Your task to perform on an android device: Look up the best rated coffee maker on Lowe's. Image 0: 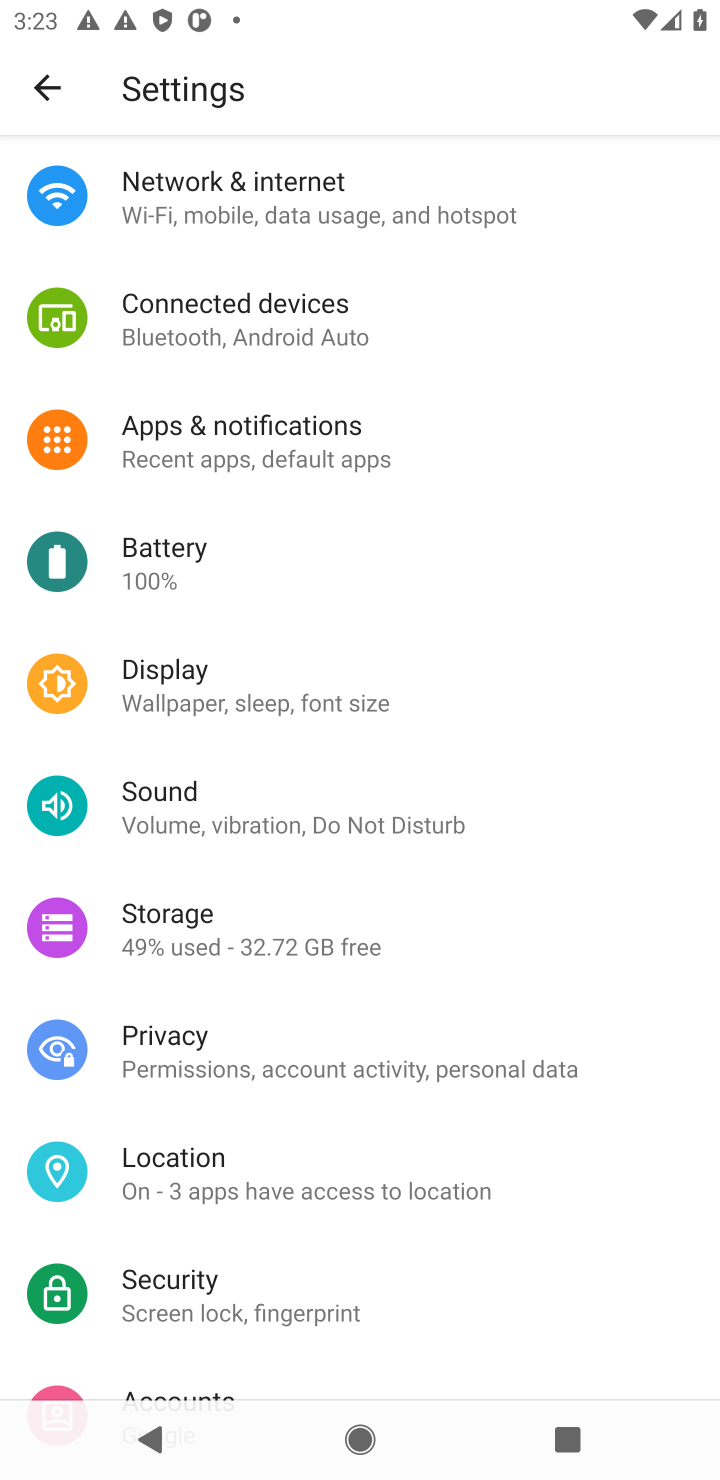
Step 0: press home button
Your task to perform on an android device: Look up the best rated coffee maker on Lowe's. Image 1: 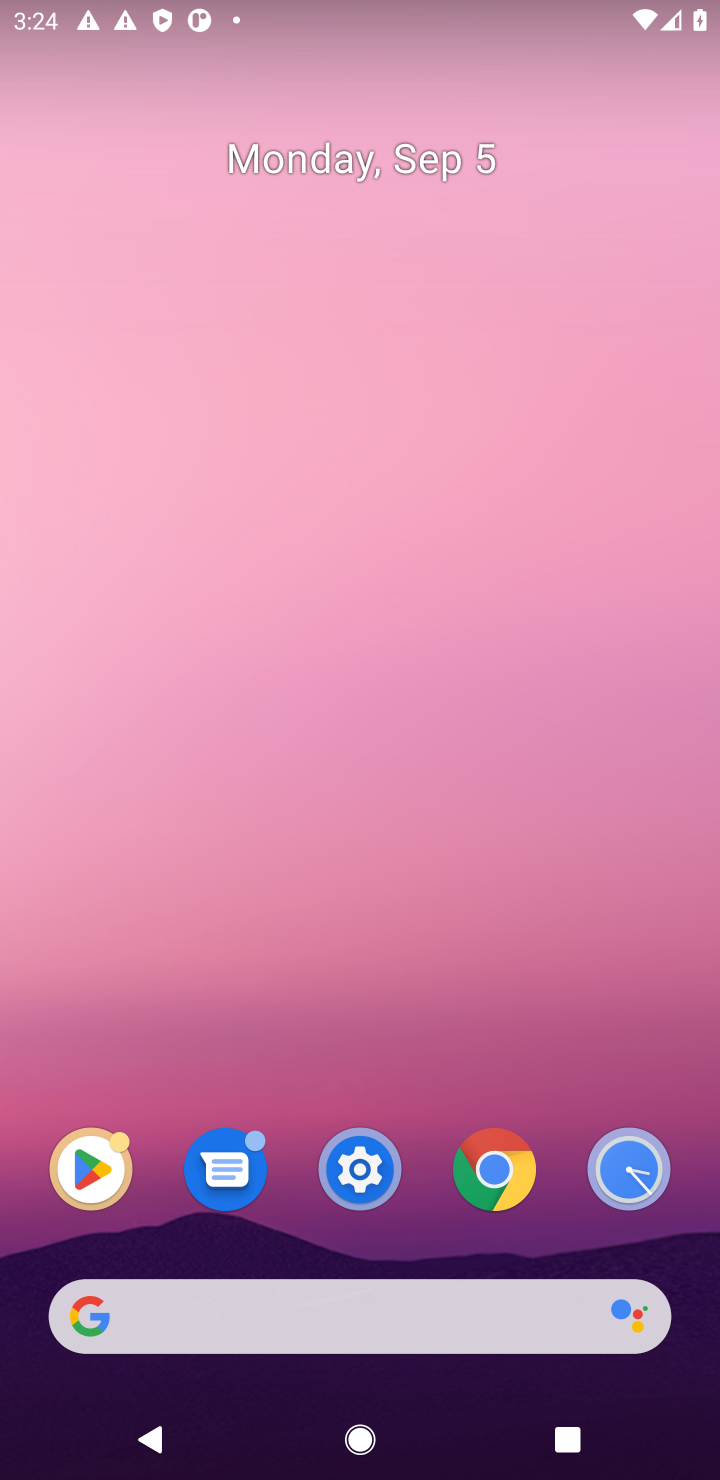
Step 1: click (494, 1178)
Your task to perform on an android device: Look up the best rated coffee maker on Lowe's. Image 2: 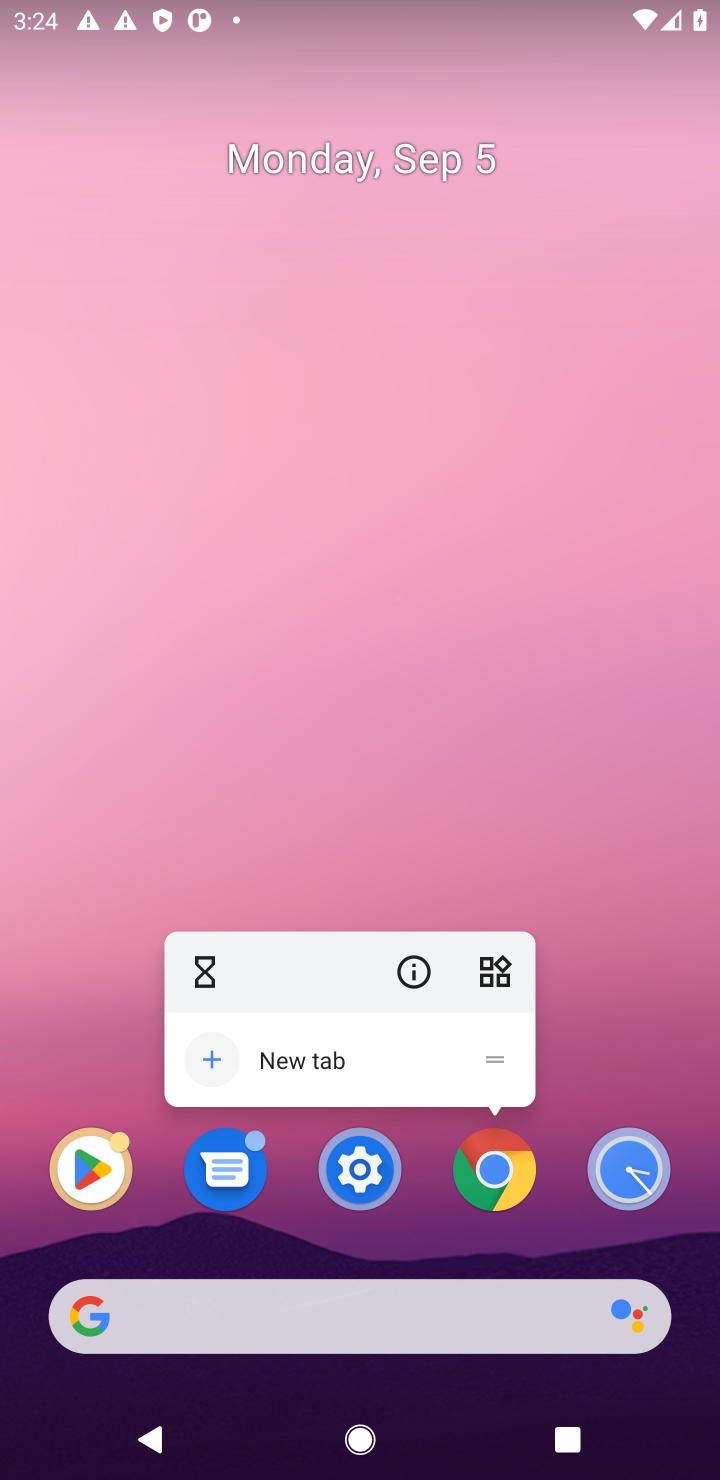
Step 2: click (502, 1177)
Your task to perform on an android device: Look up the best rated coffee maker on Lowe's. Image 3: 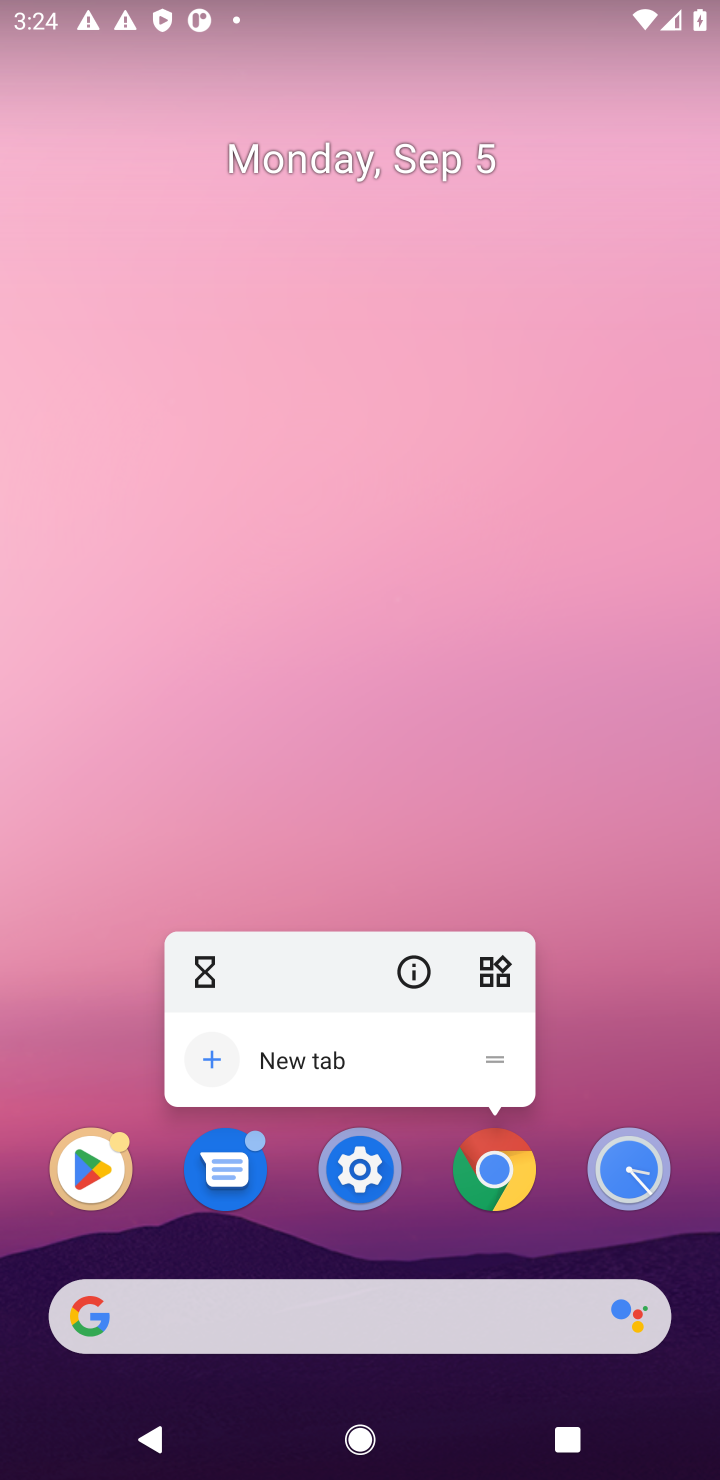
Step 3: click (506, 1175)
Your task to perform on an android device: Look up the best rated coffee maker on Lowe's. Image 4: 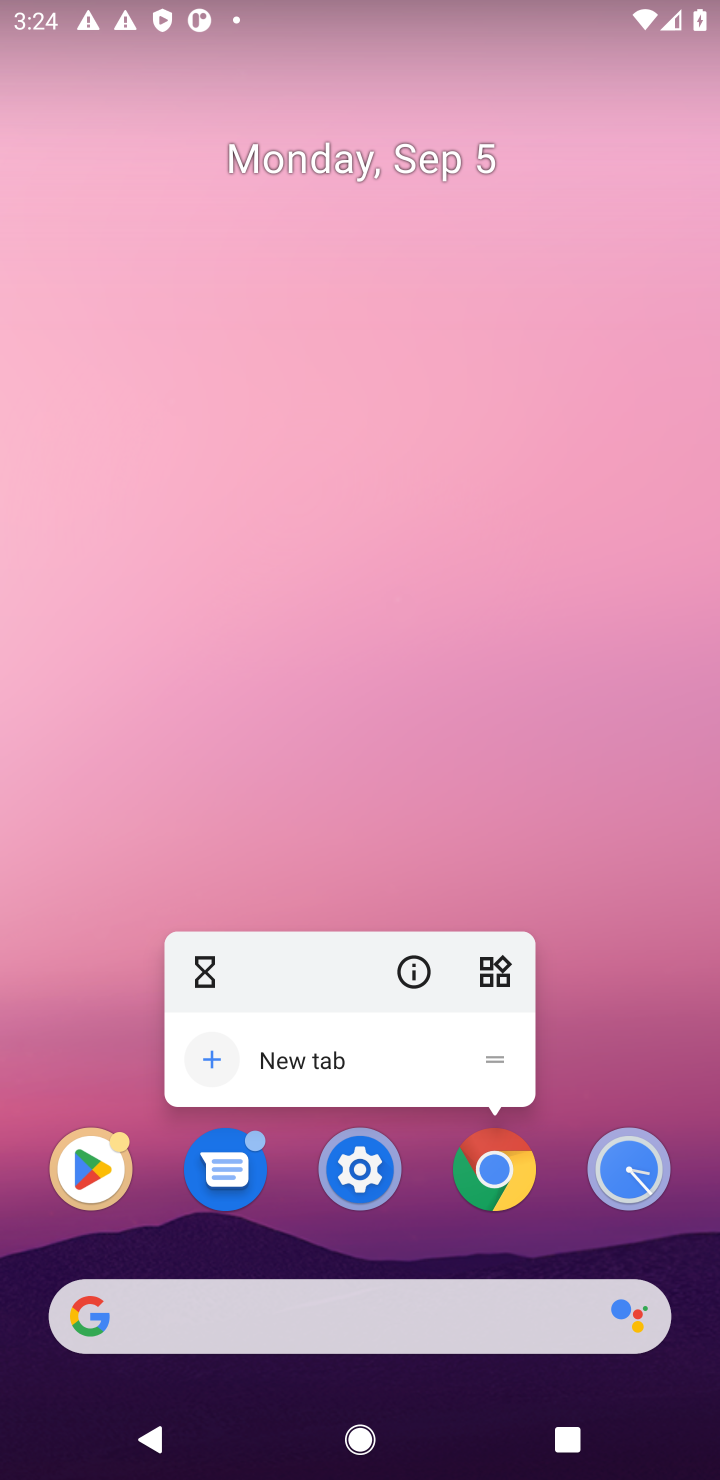
Step 4: click (506, 1175)
Your task to perform on an android device: Look up the best rated coffee maker on Lowe's. Image 5: 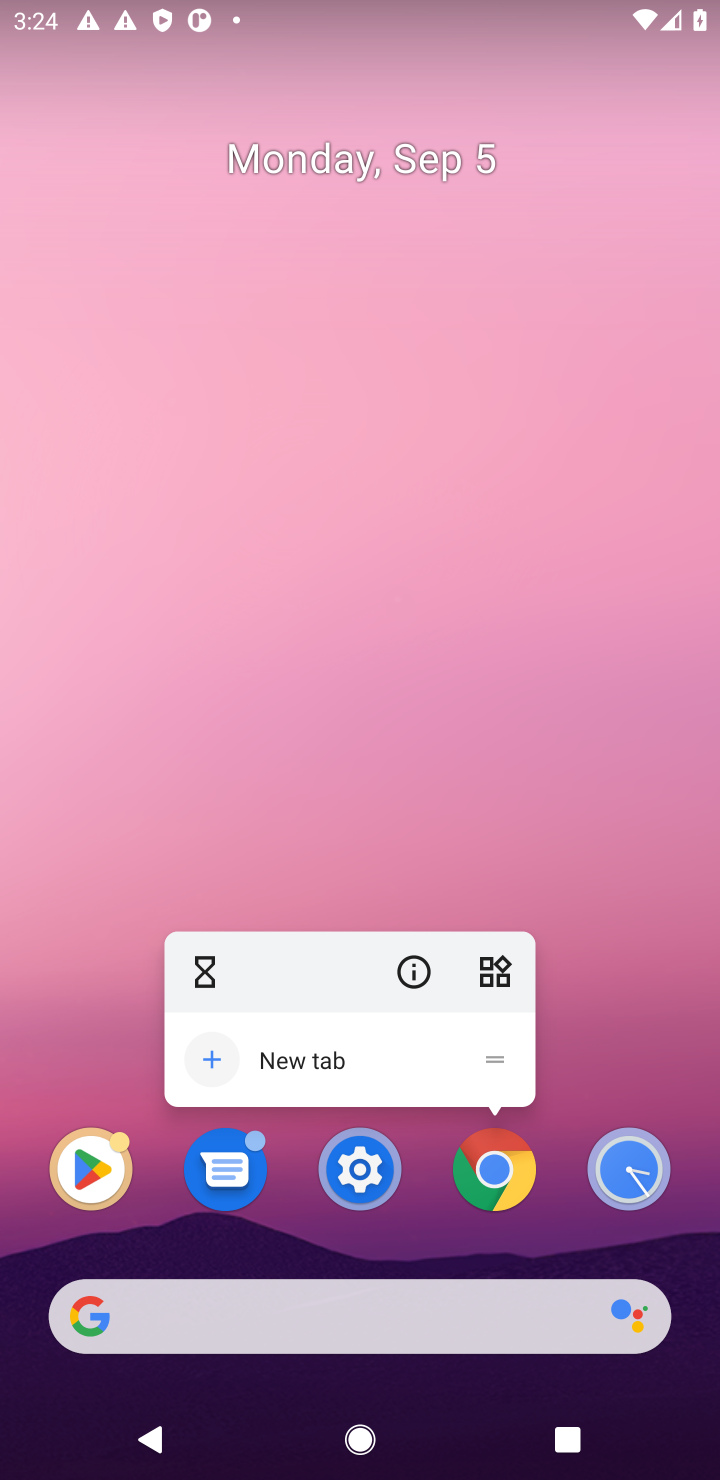
Step 5: click (500, 1168)
Your task to perform on an android device: Look up the best rated coffee maker on Lowe's. Image 6: 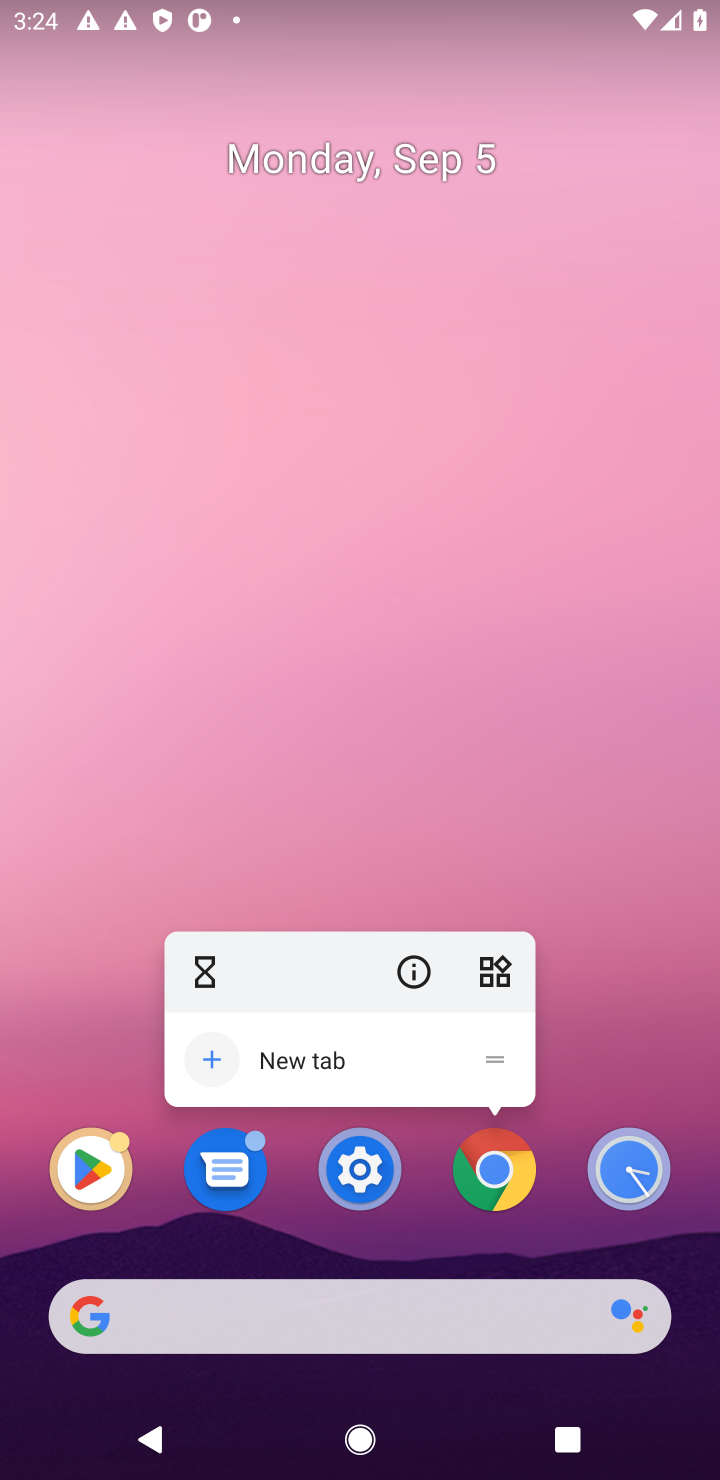
Step 6: click (500, 1168)
Your task to perform on an android device: Look up the best rated coffee maker on Lowe's. Image 7: 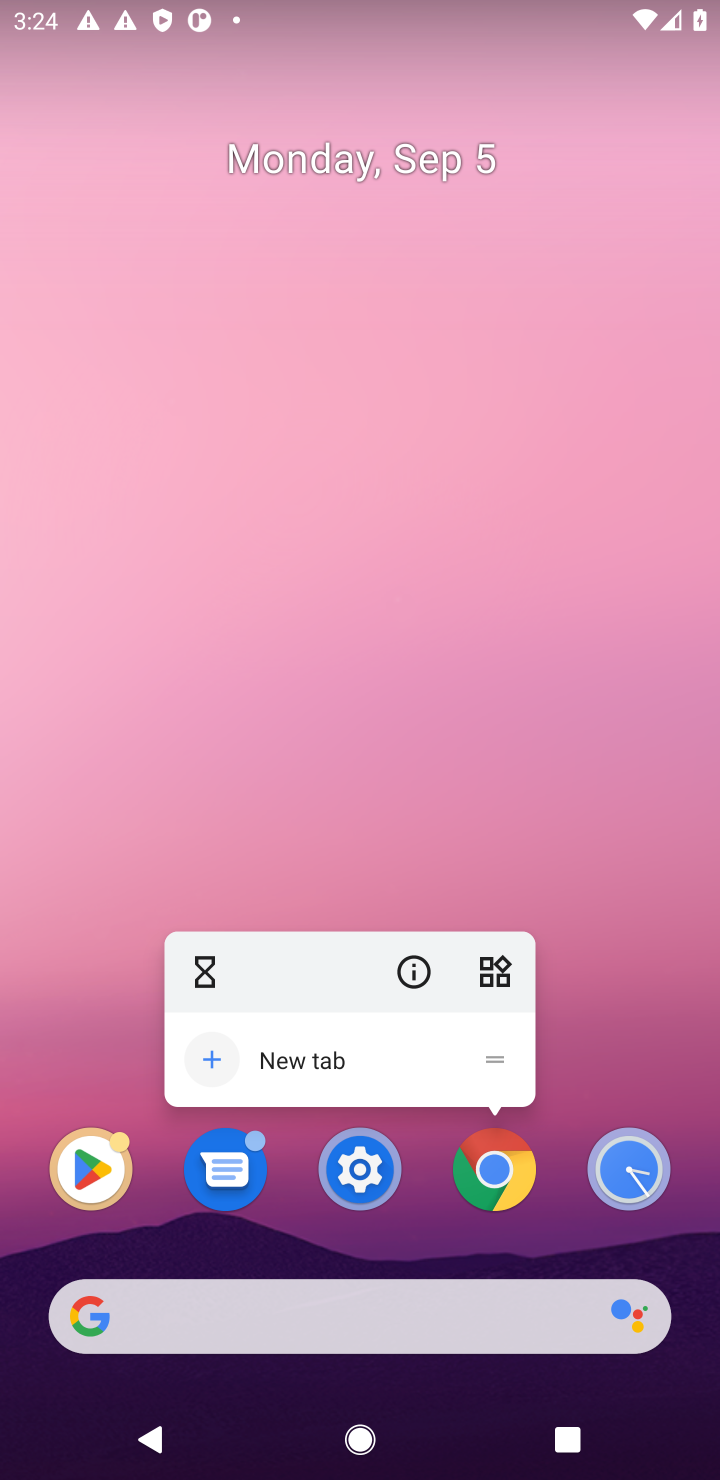
Step 7: click (484, 1166)
Your task to perform on an android device: Look up the best rated coffee maker on Lowe's. Image 8: 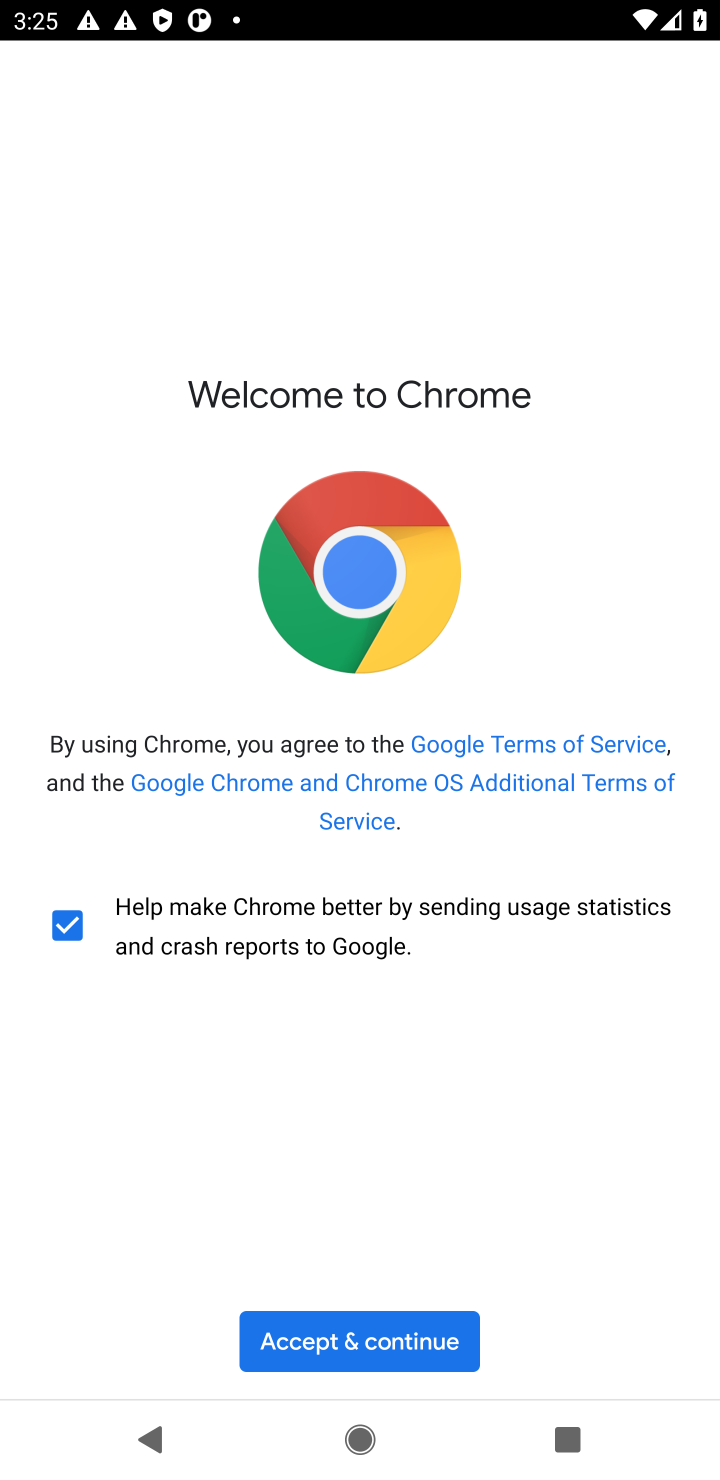
Step 8: click (348, 1348)
Your task to perform on an android device: Look up the best rated coffee maker on Lowe's. Image 9: 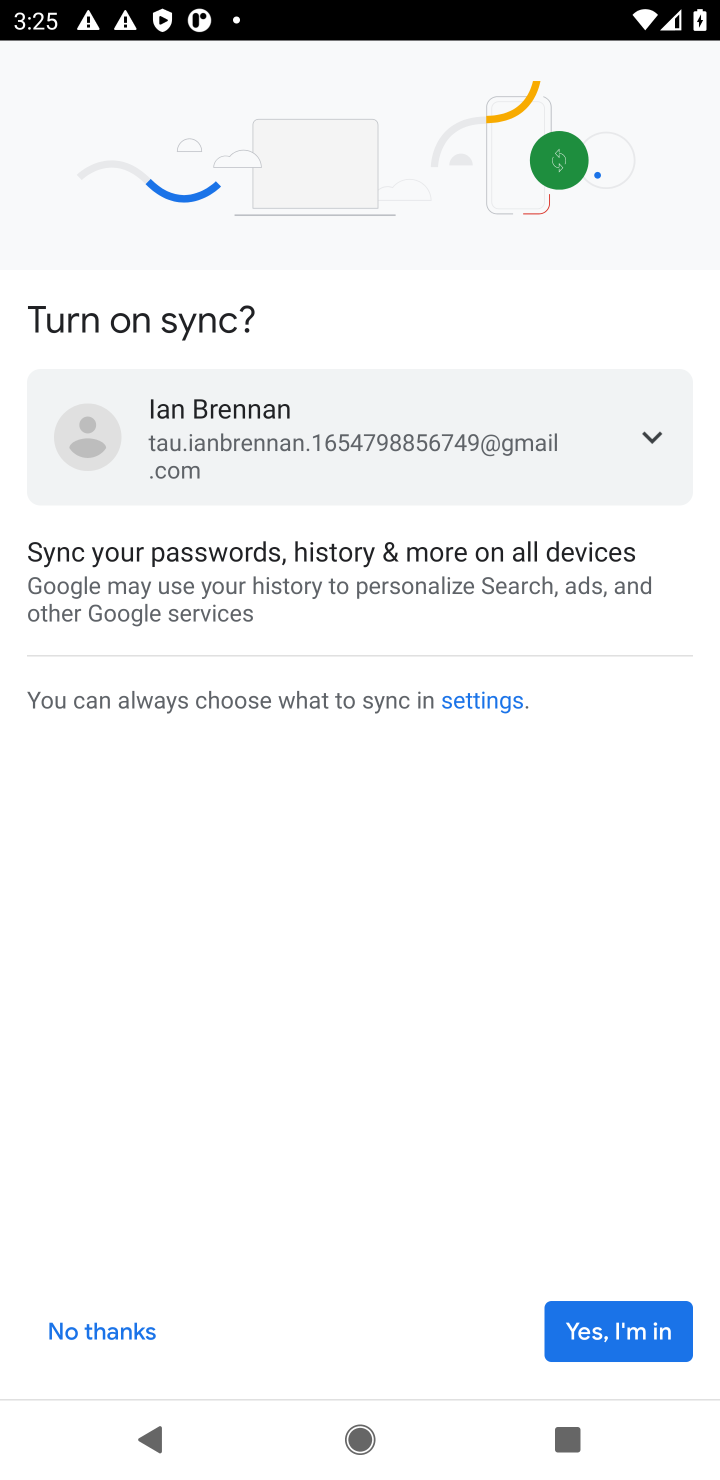
Step 9: click (61, 1335)
Your task to perform on an android device: Look up the best rated coffee maker on Lowe's. Image 10: 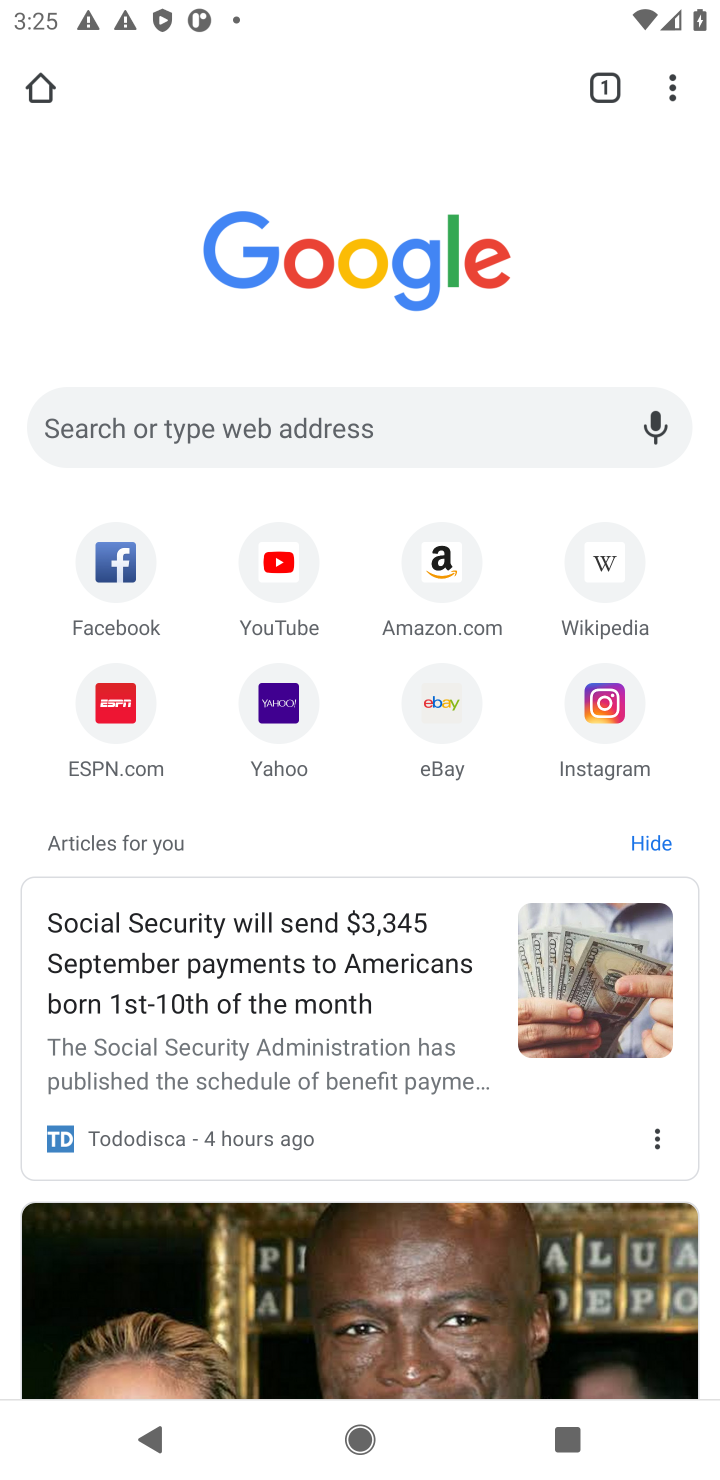
Step 10: click (229, 431)
Your task to perform on an android device: Look up the best rated coffee maker on Lowe's. Image 11: 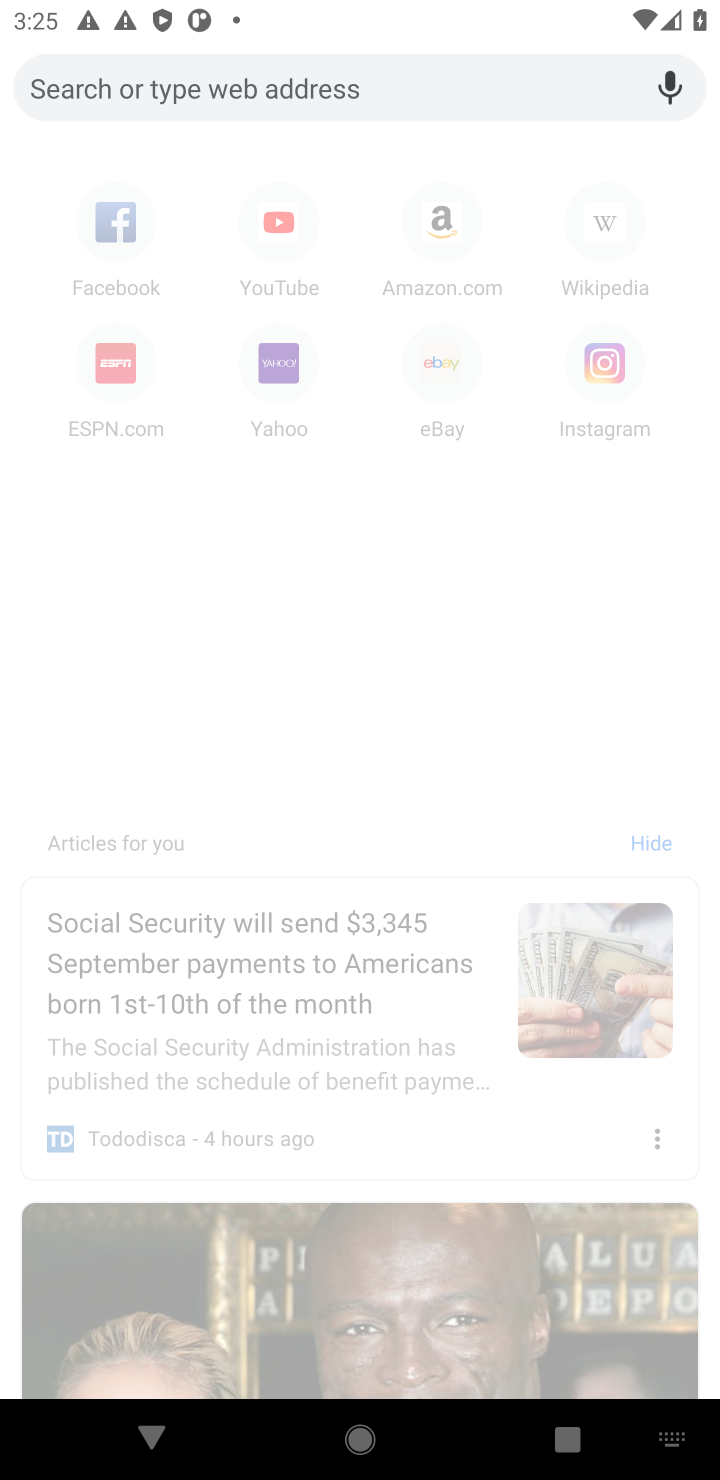
Step 11: click (221, 90)
Your task to perform on an android device: Look up the best rated coffee maker on Lowe's. Image 12: 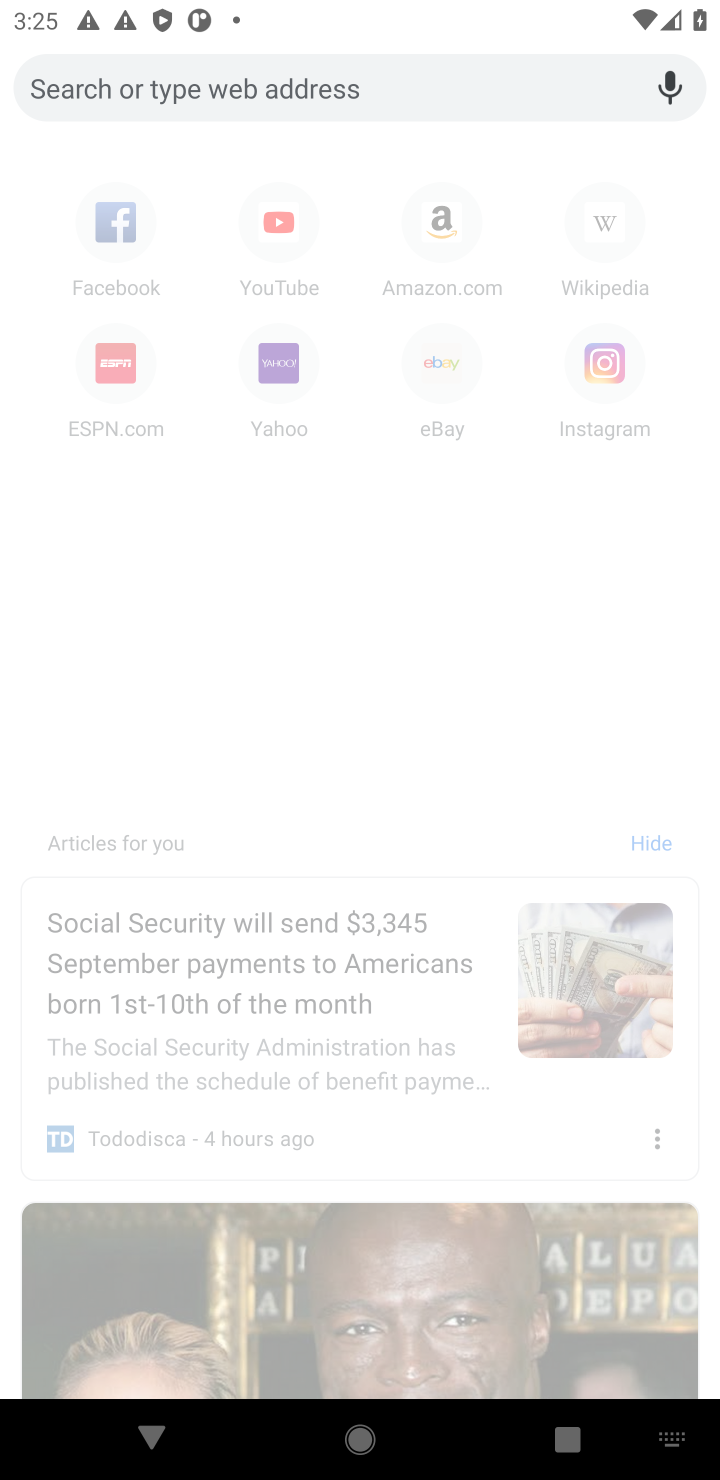
Step 12: type " Lowe's."
Your task to perform on an android device: Look up the best rated coffee maker on Lowe's. Image 13: 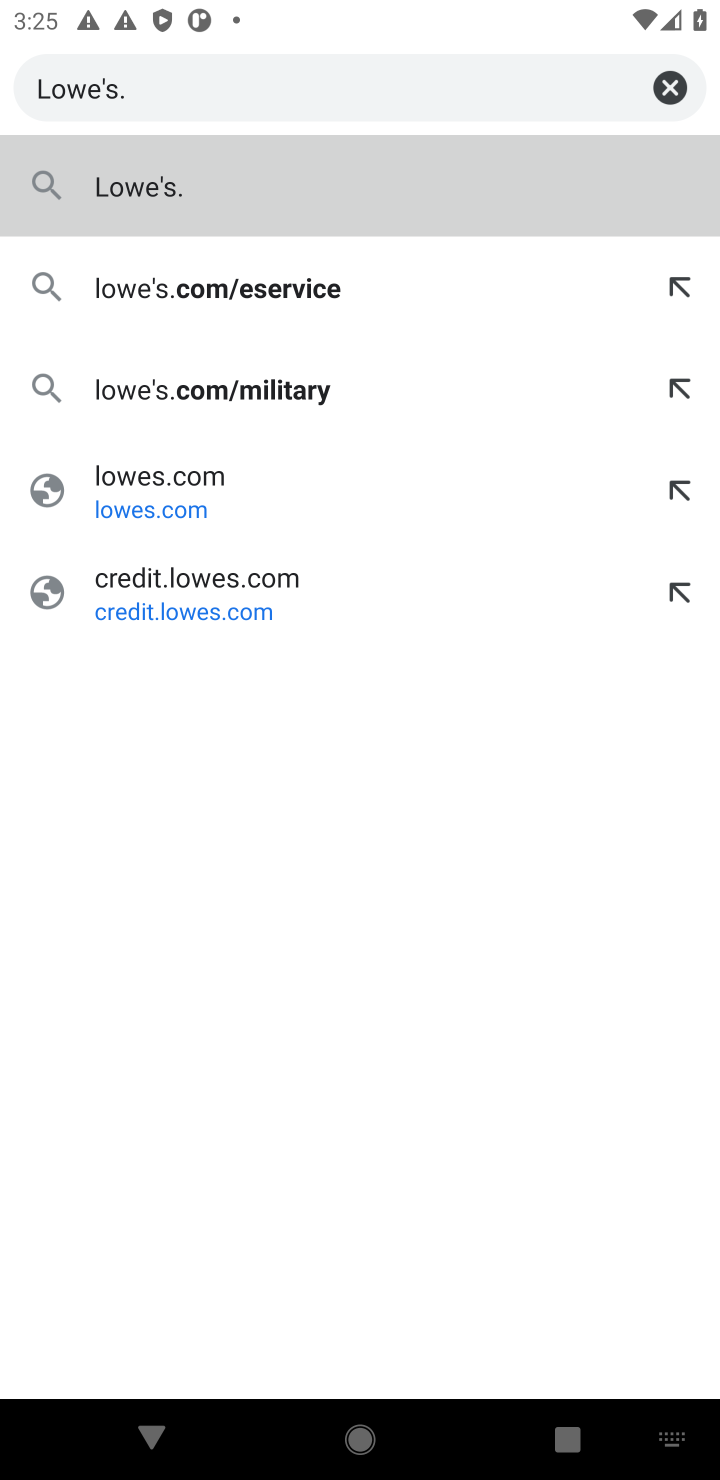
Step 13: click (92, 197)
Your task to perform on an android device: Look up the best rated coffee maker on Lowe's. Image 14: 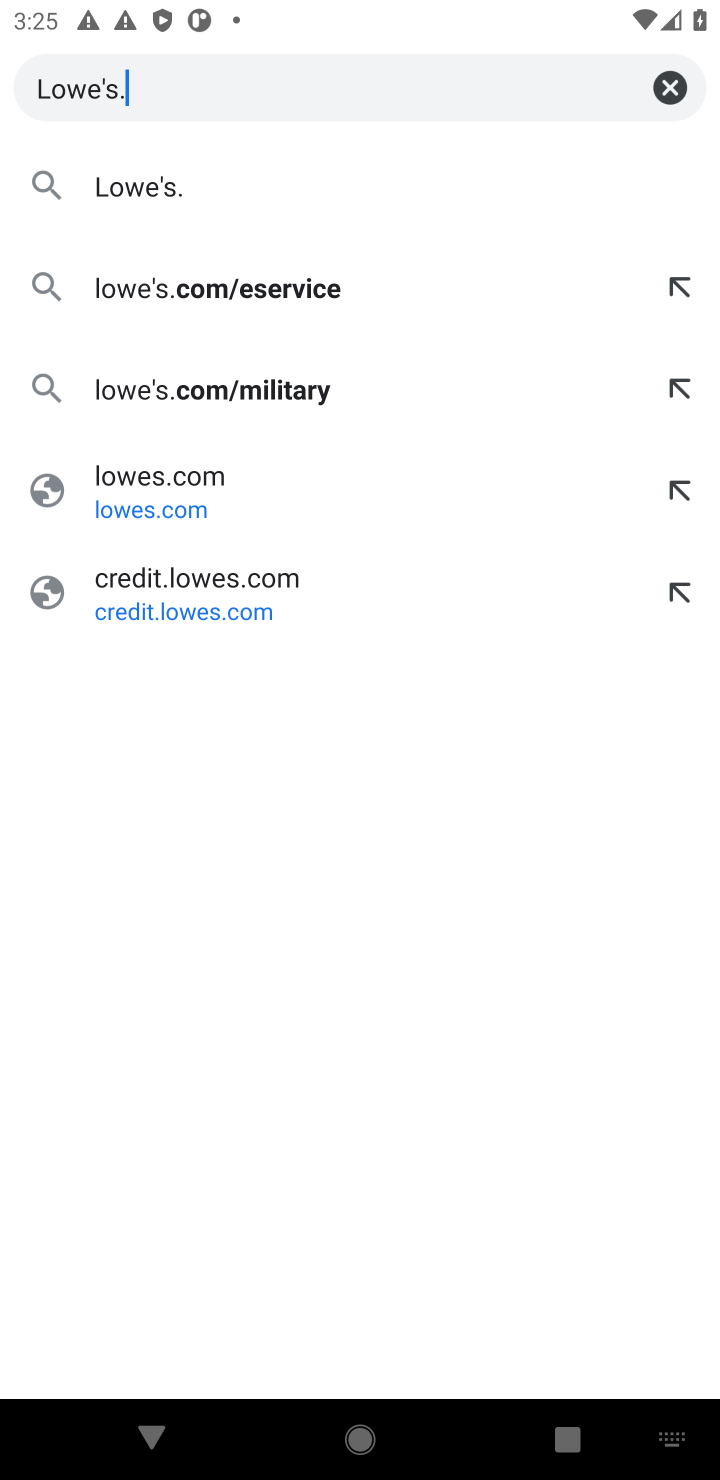
Step 14: click (169, 193)
Your task to perform on an android device: Look up the best rated coffee maker on Lowe's. Image 15: 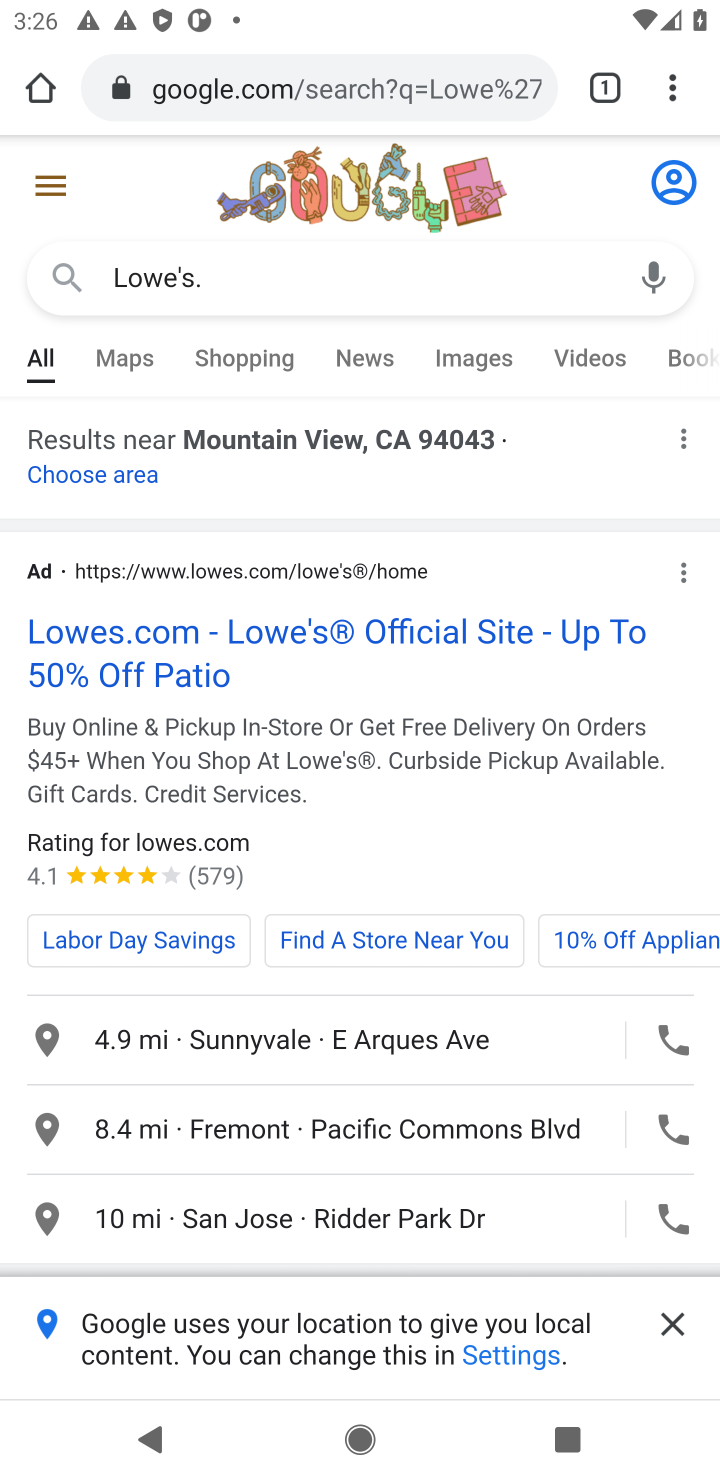
Step 15: click (140, 646)
Your task to perform on an android device: Look up the best rated coffee maker on Lowe's. Image 16: 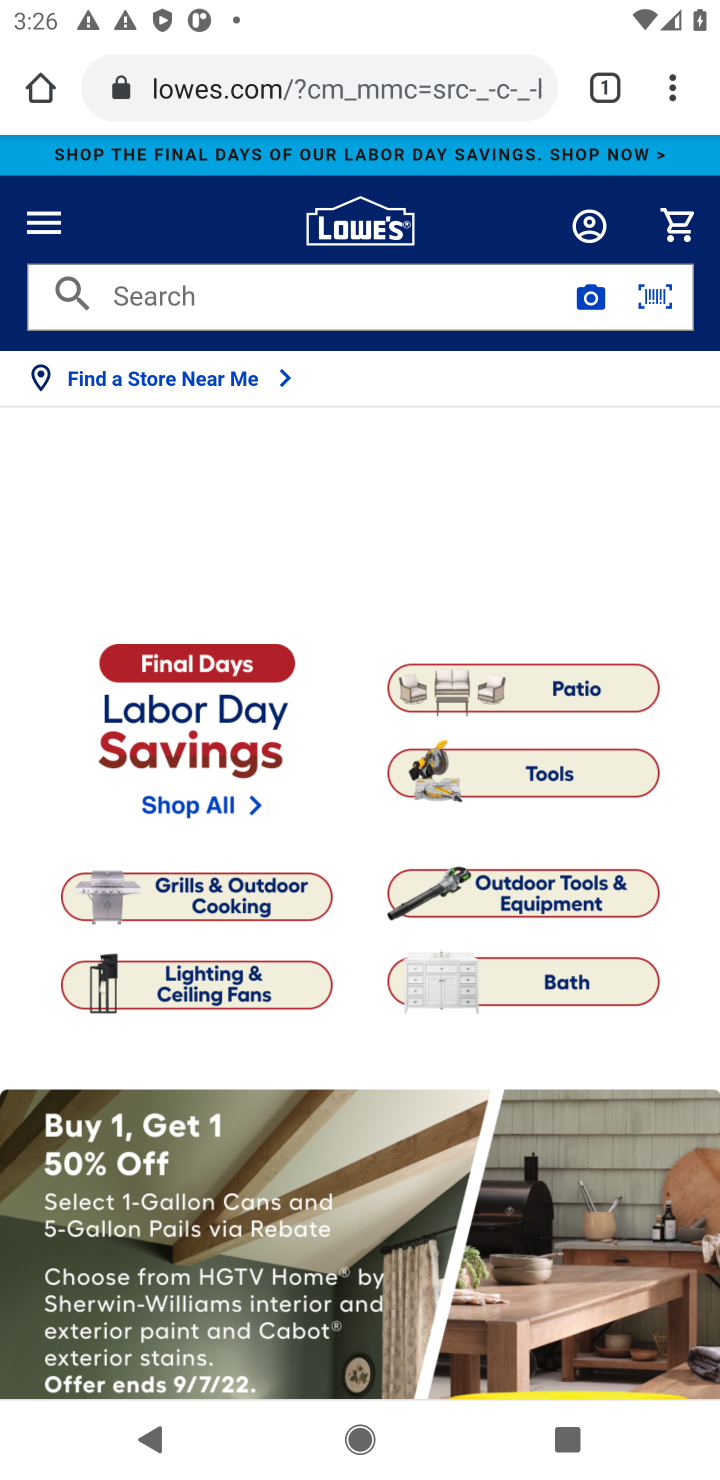
Step 16: click (192, 294)
Your task to perform on an android device: Look up the best rated coffee maker on Lowe's. Image 17: 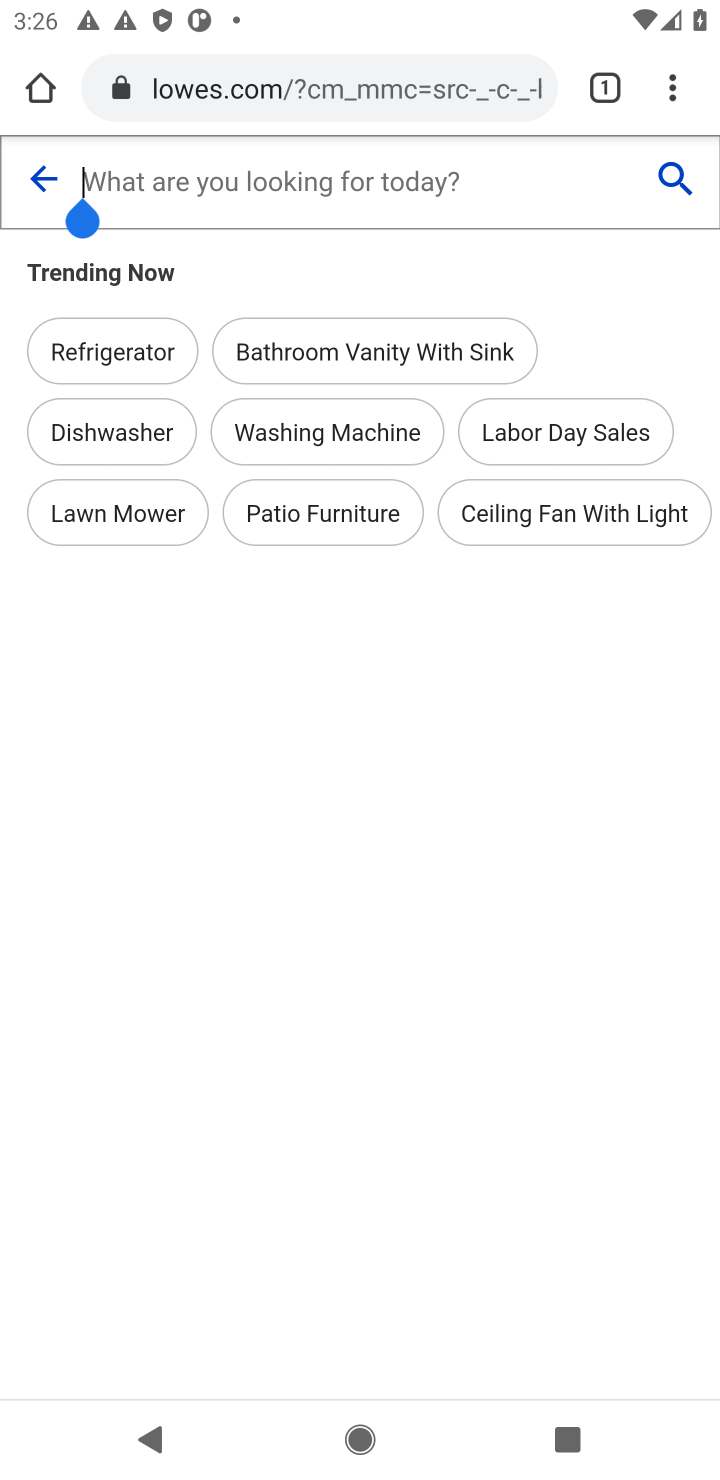
Step 17: type "best rated coffee maker"
Your task to perform on an android device: Look up the best rated coffee maker on Lowe's. Image 18: 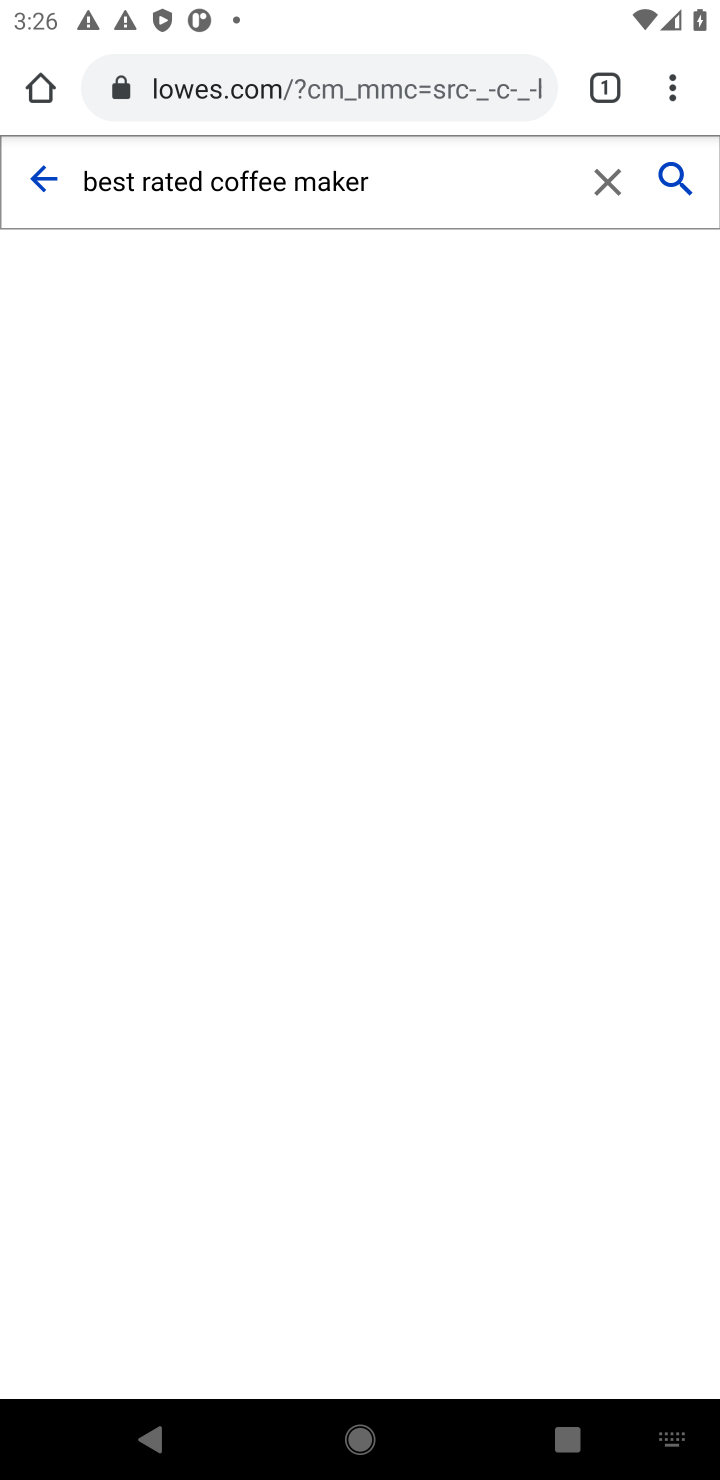
Step 18: click (661, 177)
Your task to perform on an android device: Look up the best rated coffee maker on Lowe's. Image 19: 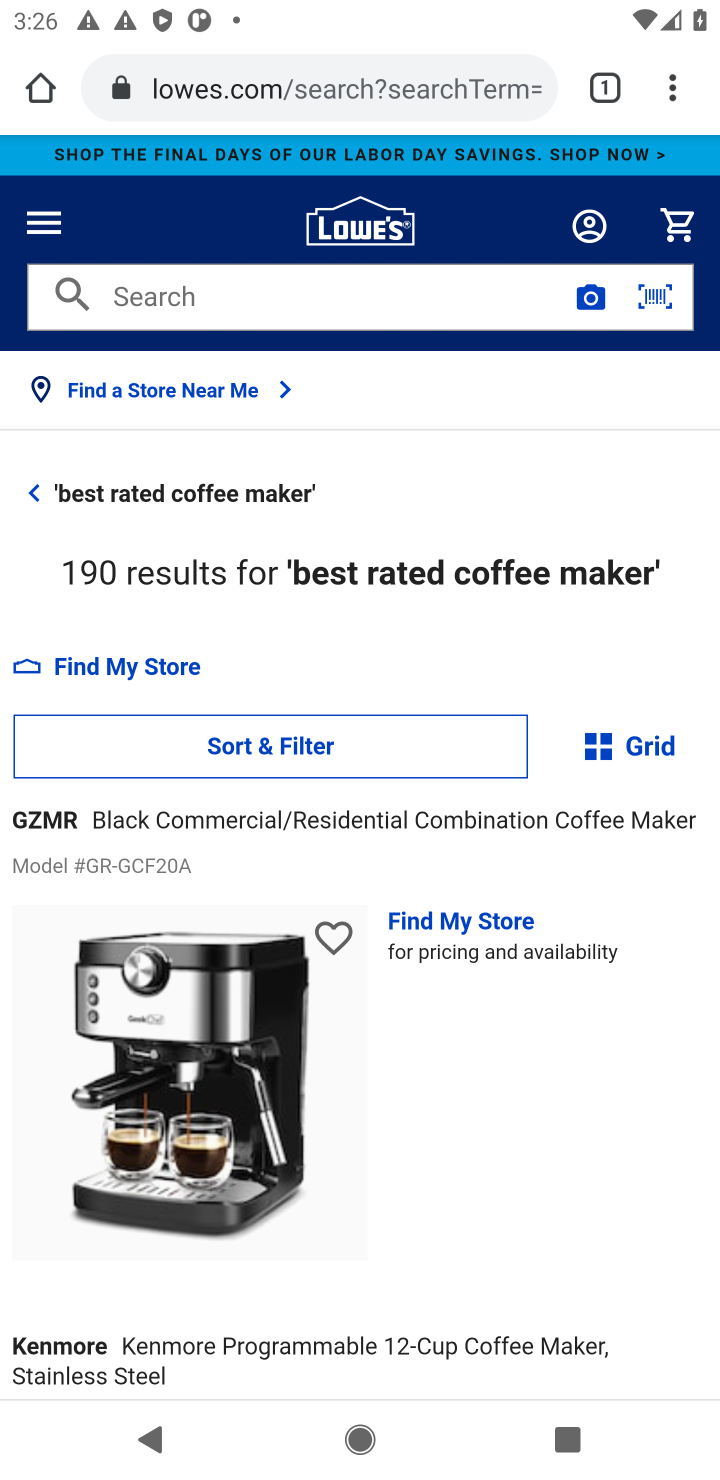
Step 19: task complete